Your task to perform on an android device: Open the phone app and click the voicemail tab. Image 0: 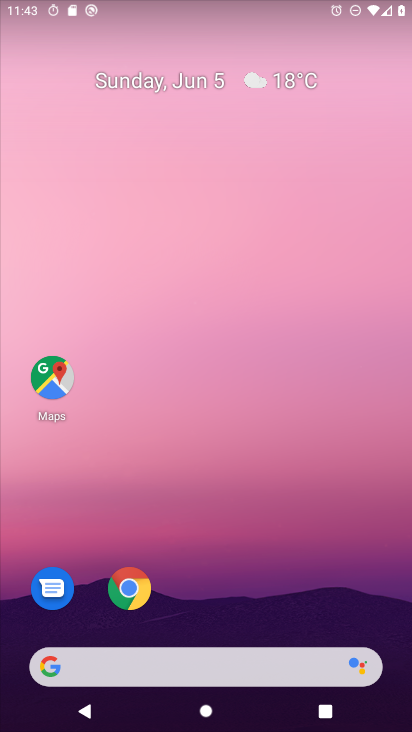
Step 0: drag from (375, 614) to (376, 255)
Your task to perform on an android device: Open the phone app and click the voicemail tab. Image 1: 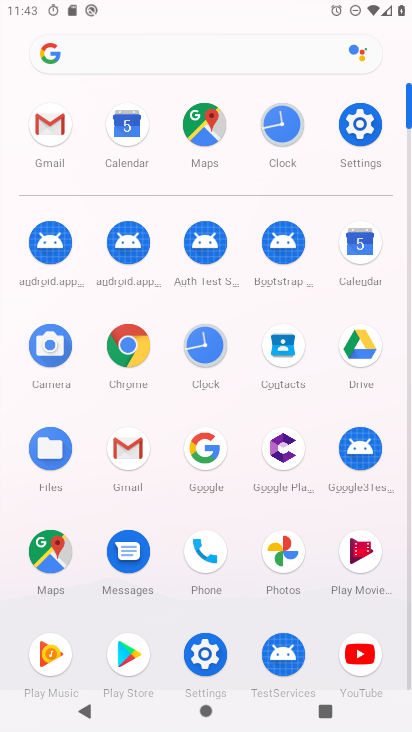
Step 1: click (205, 565)
Your task to perform on an android device: Open the phone app and click the voicemail tab. Image 2: 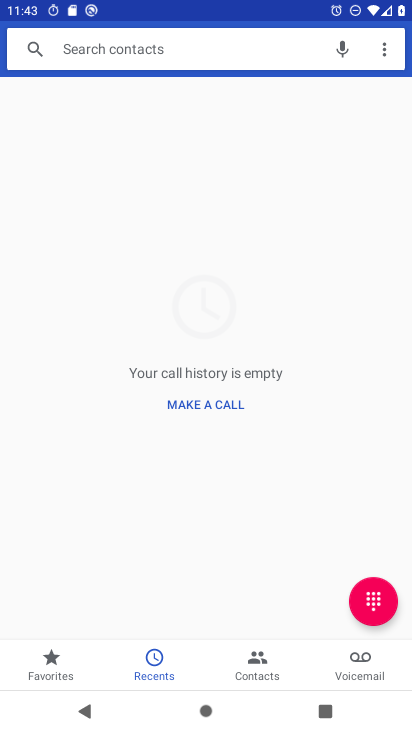
Step 2: click (382, 667)
Your task to perform on an android device: Open the phone app and click the voicemail tab. Image 3: 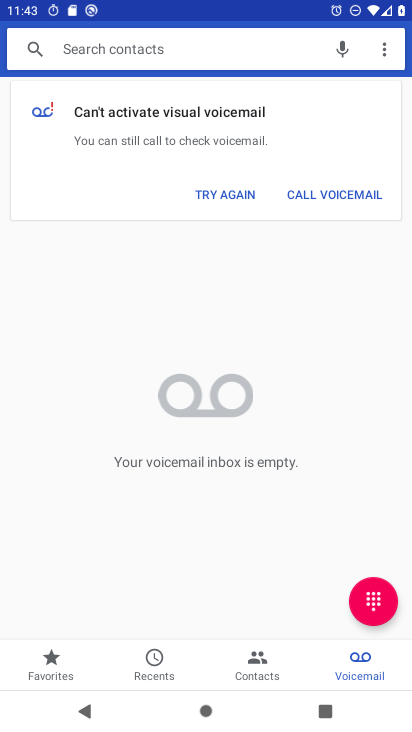
Step 3: task complete